Your task to perform on an android device: What's the weather going to be tomorrow? Image 0: 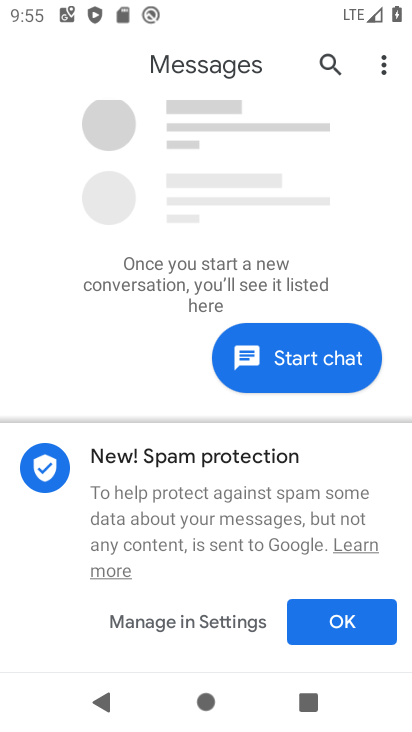
Step 0: press home button
Your task to perform on an android device: What's the weather going to be tomorrow? Image 1: 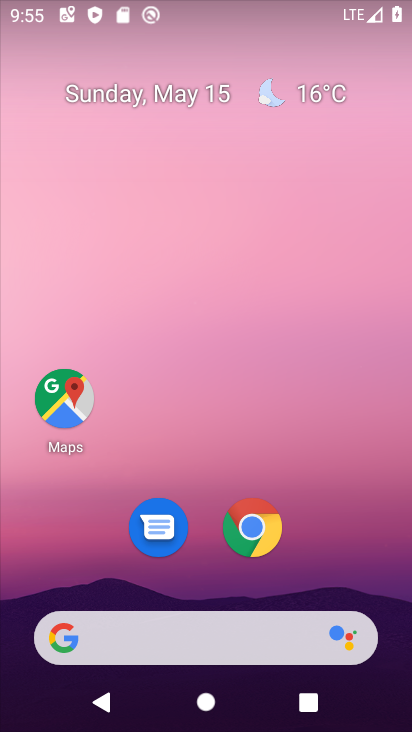
Step 1: click (302, 95)
Your task to perform on an android device: What's the weather going to be tomorrow? Image 2: 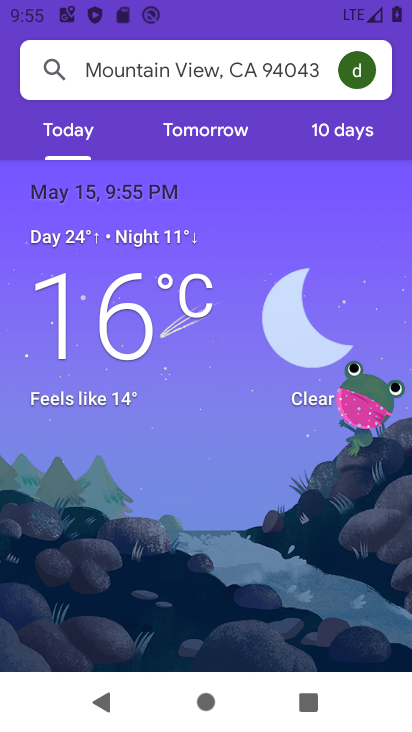
Step 2: click (187, 136)
Your task to perform on an android device: What's the weather going to be tomorrow? Image 3: 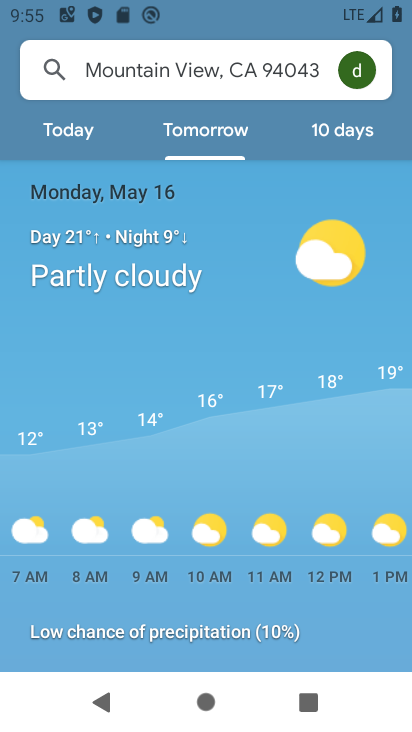
Step 3: task complete